Your task to perform on an android device: toggle data saver in the chrome app Image 0: 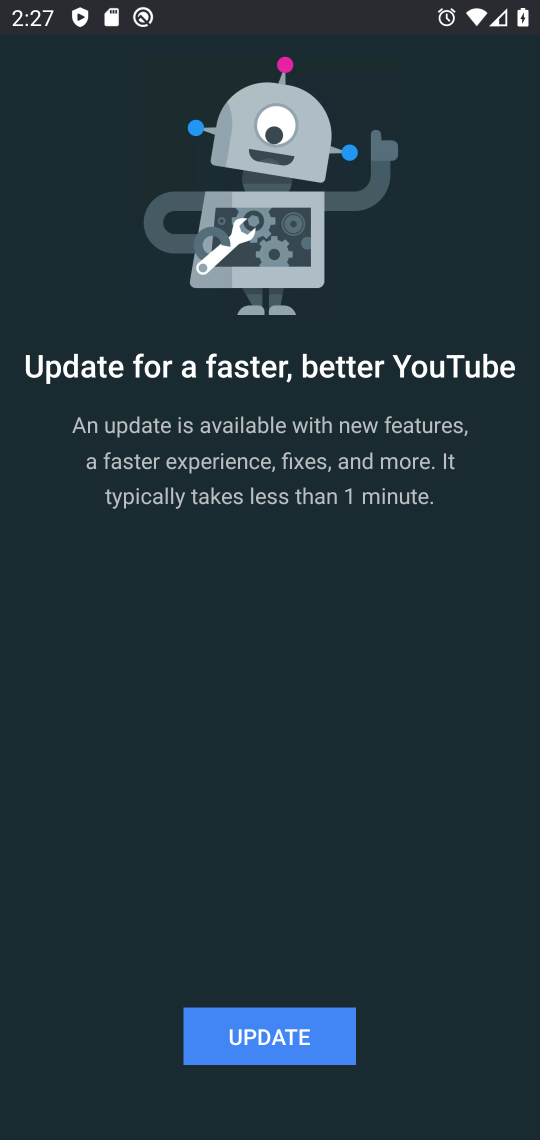
Step 0: click (520, 979)
Your task to perform on an android device: toggle data saver in the chrome app Image 1: 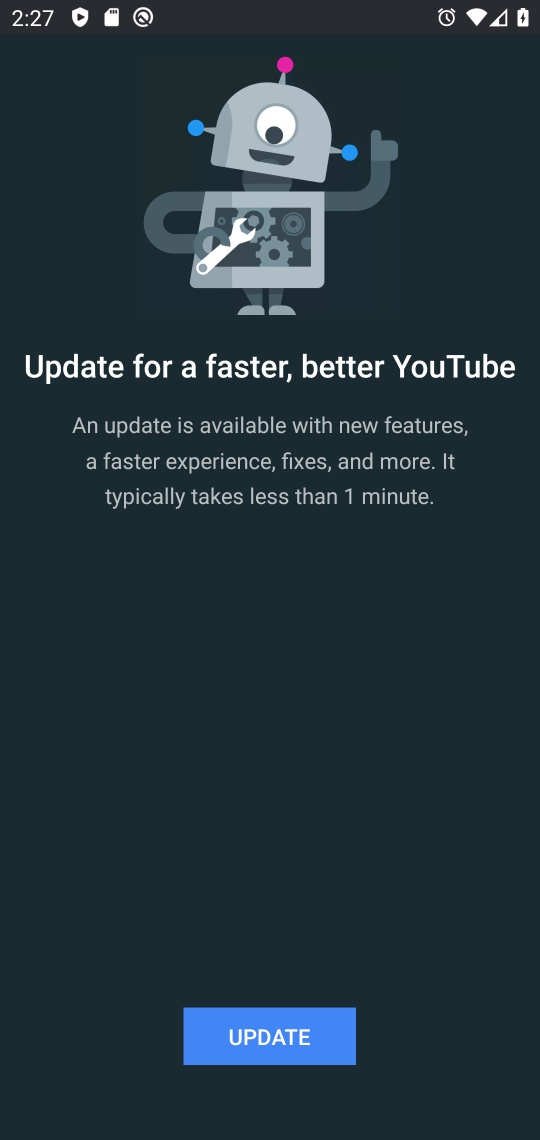
Step 1: press home button
Your task to perform on an android device: toggle data saver in the chrome app Image 2: 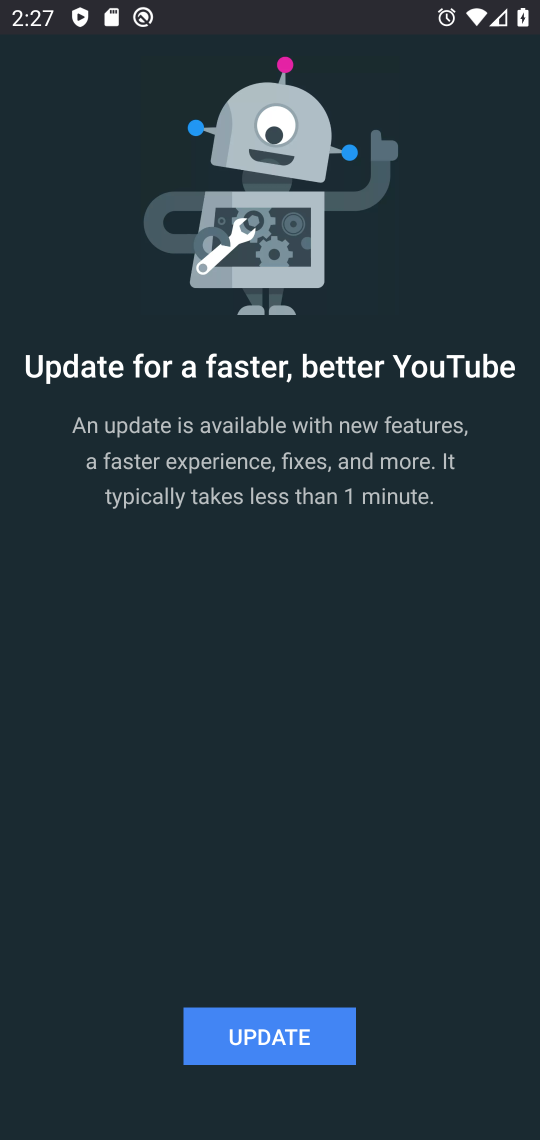
Step 2: drag from (491, 971) to (492, 227)
Your task to perform on an android device: toggle data saver in the chrome app Image 3: 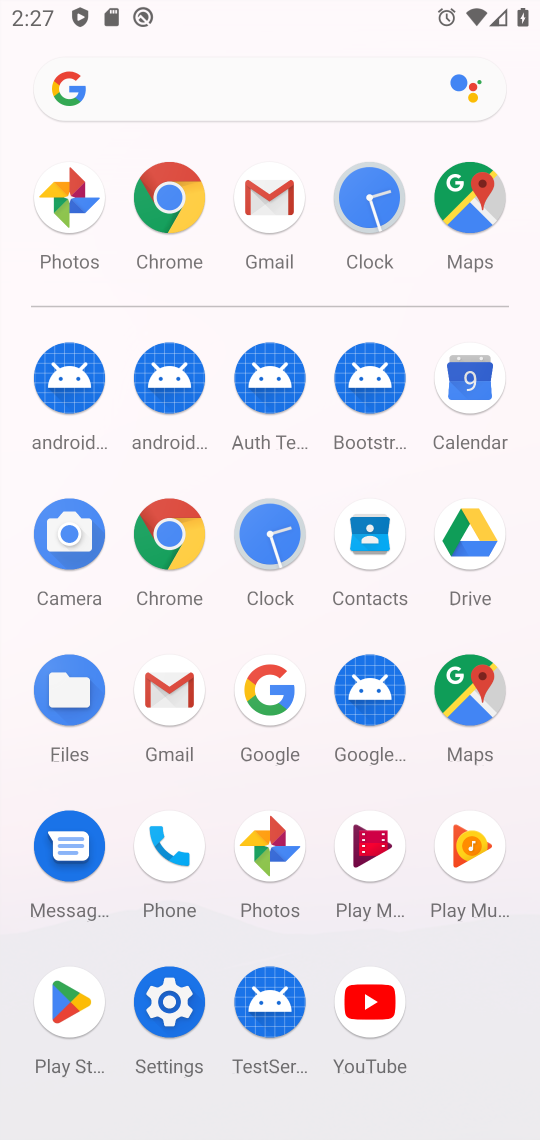
Step 3: click (175, 547)
Your task to perform on an android device: toggle data saver in the chrome app Image 4: 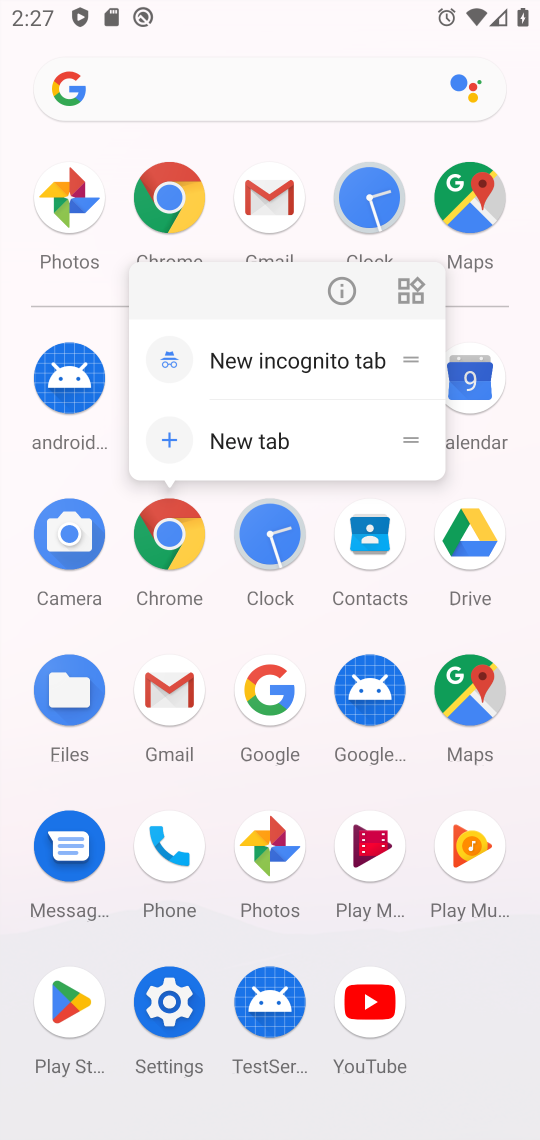
Step 4: click (338, 291)
Your task to perform on an android device: toggle data saver in the chrome app Image 5: 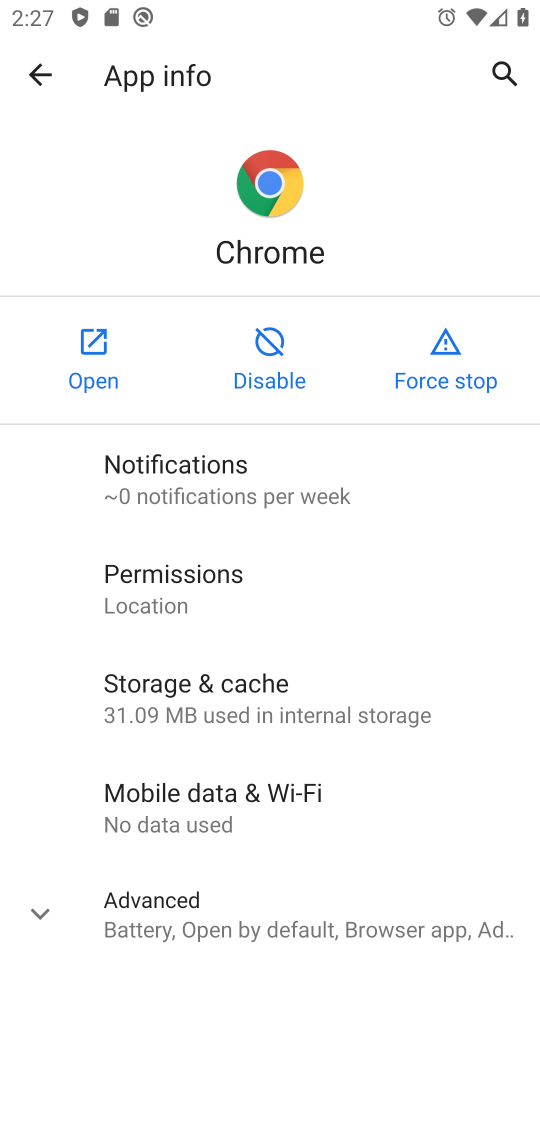
Step 5: click (111, 360)
Your task to perform on an android device: toggle data saver in the chrome app Image 6: 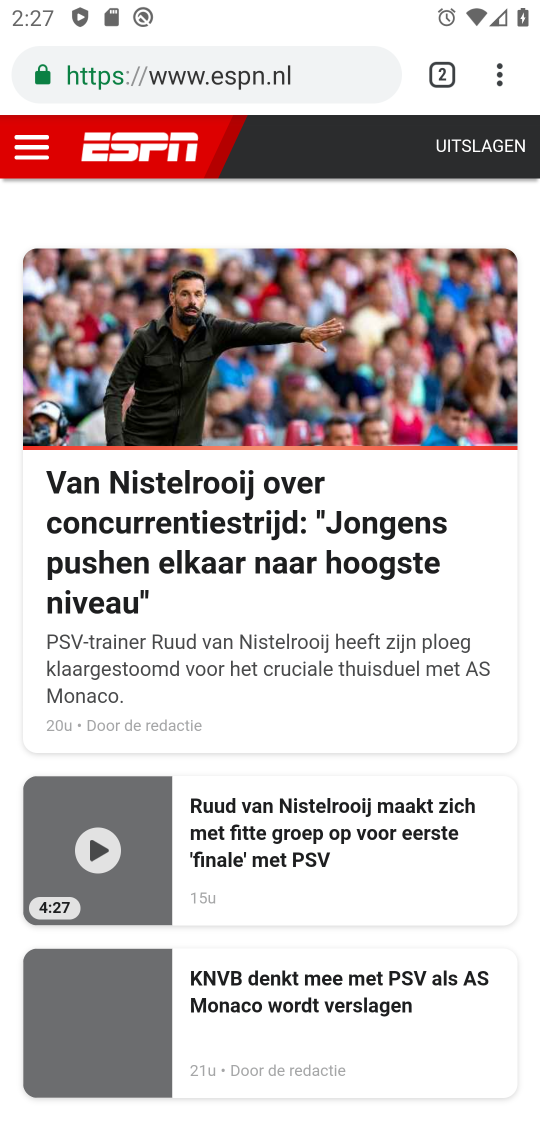
Step 6: drag from (505, 77) to (296, 893)
Your task to perform on an android device: toggle data saver in the chrome app Image 7: 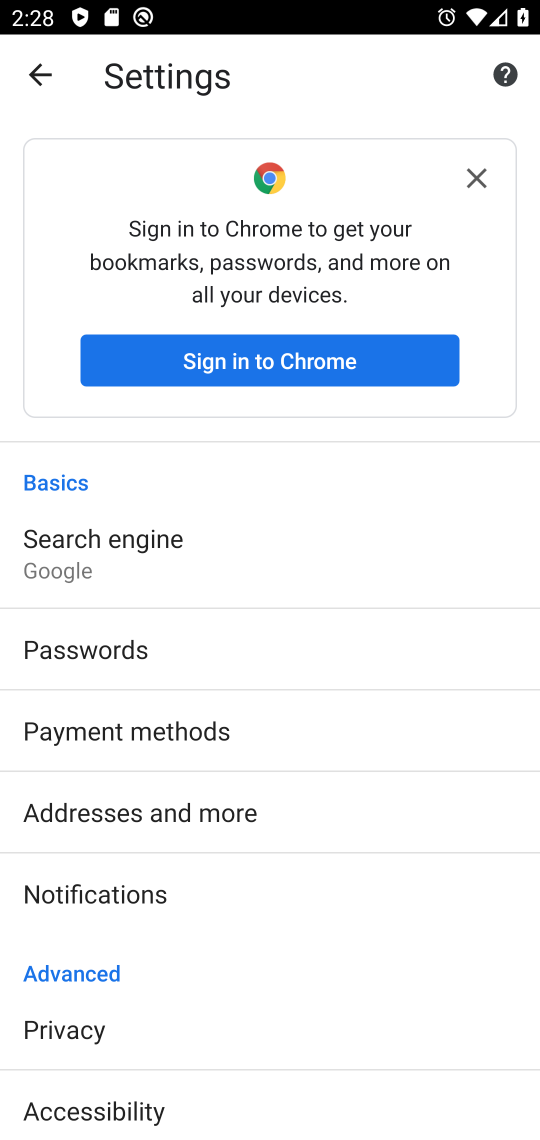
Step 7: drag from (224, 1048) to (392, 484)
Your task to perform on an android device: toggle data saver in the chrome app Image 8: 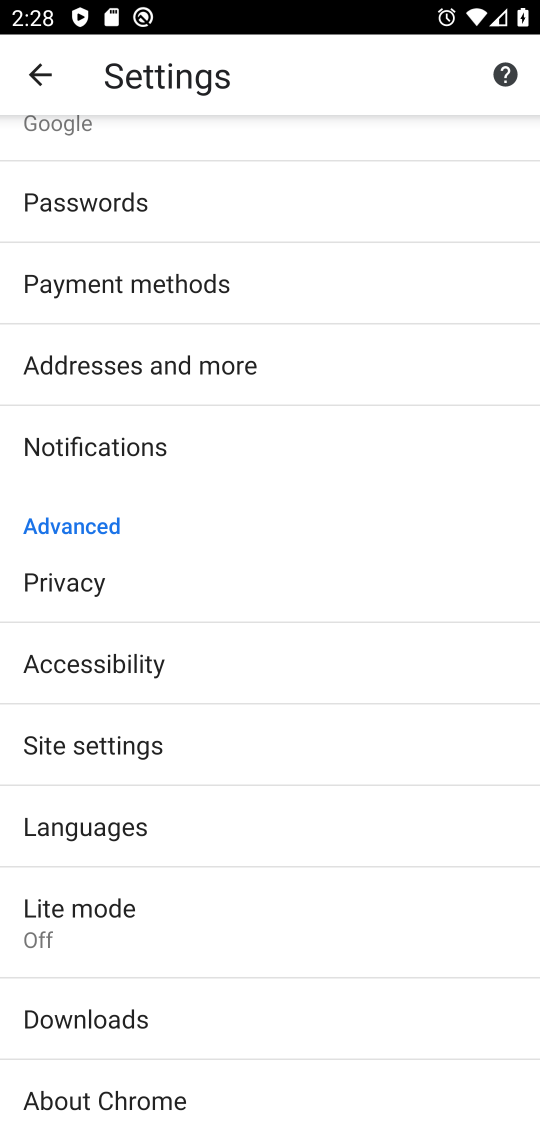
Step 8: drag from (234, 952) to (318, 475)
Your task to perform on an android device: toggle data saver in the chrome app Image 9: 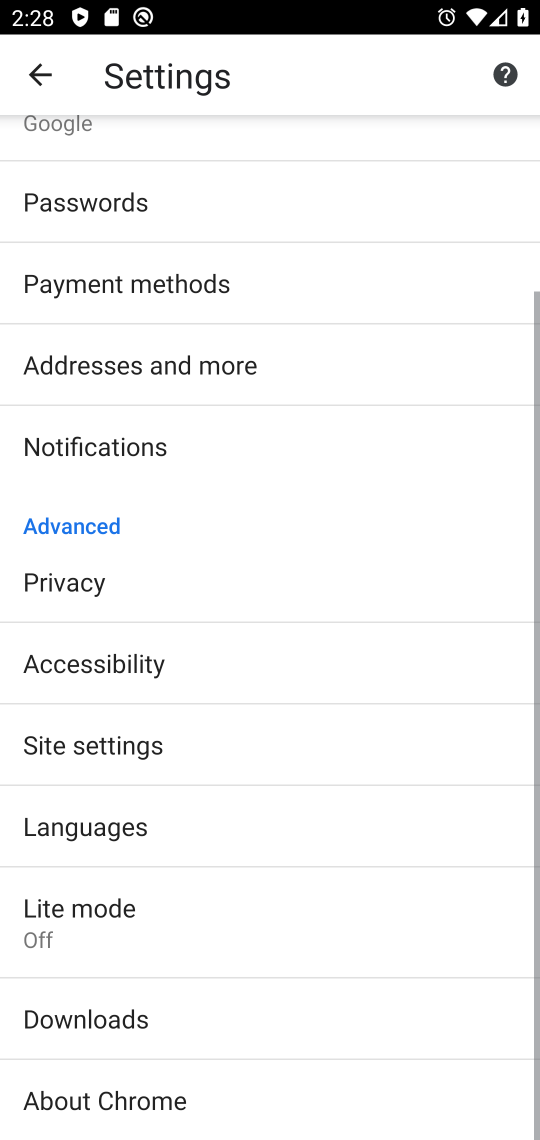
Step 9: click (213, 896)
Your task to perform on an android device: toggle data saver in the chrome app Image 10: 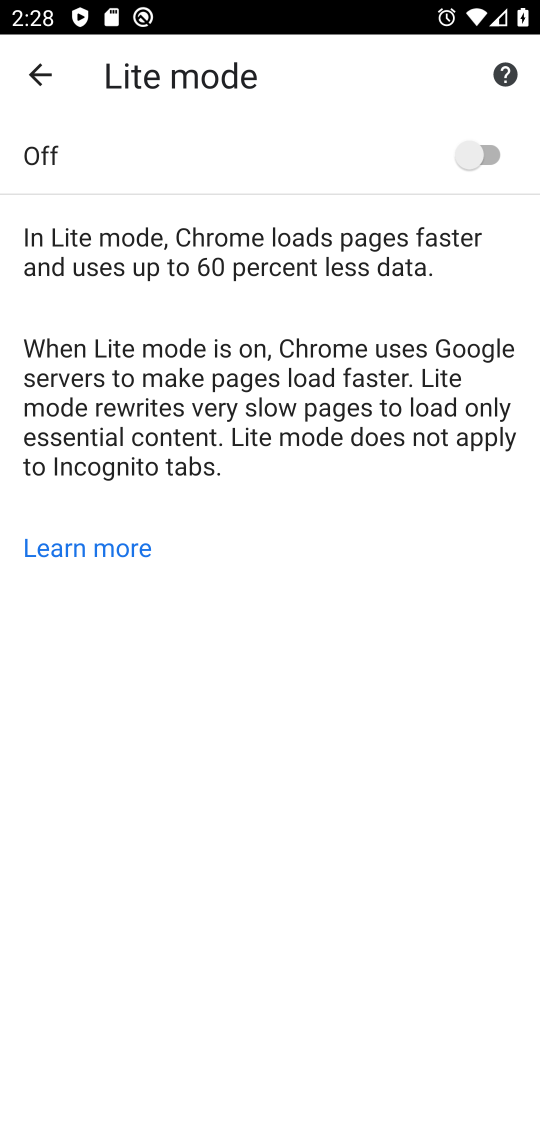
Step 10: click (493, 158)
Your task to perform on an android device: toggle data saver in the chrome app Image 11: 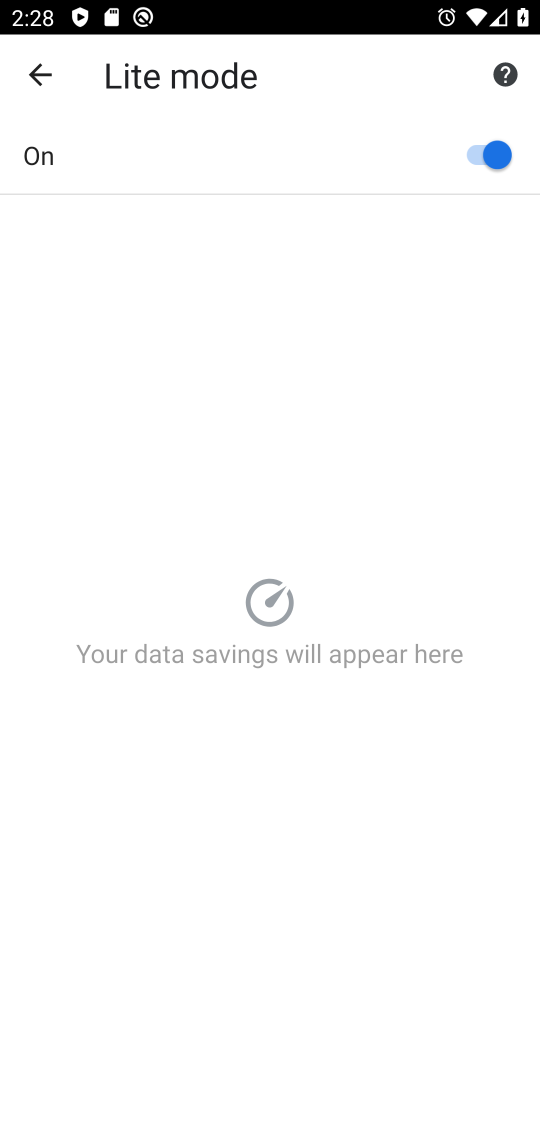
Step 11: task complete